Your task to perform on an android device: Set an alarm for 6pm Image 0: 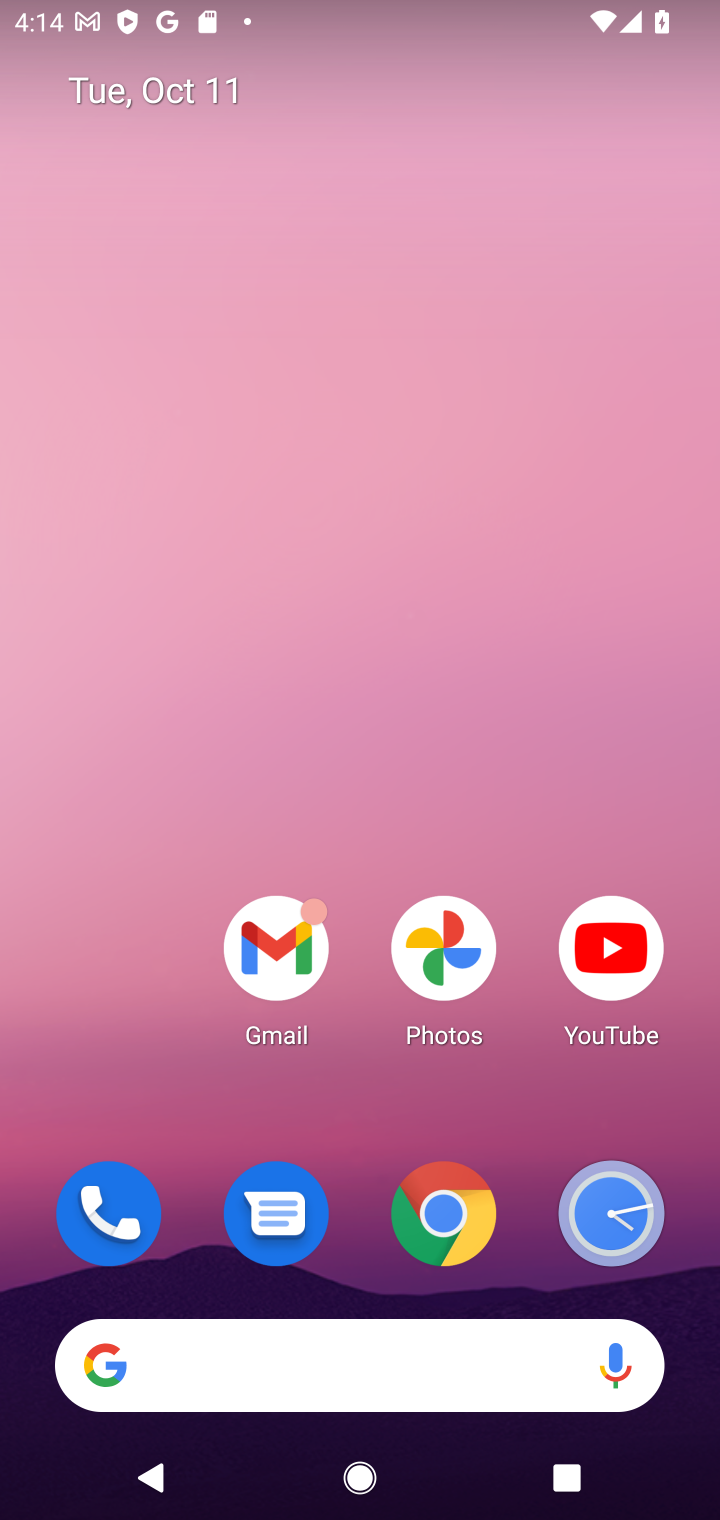
Step 0: click (590, 1205)
Your task to perform on an android device: Set an alarm for 6pm Image 1: 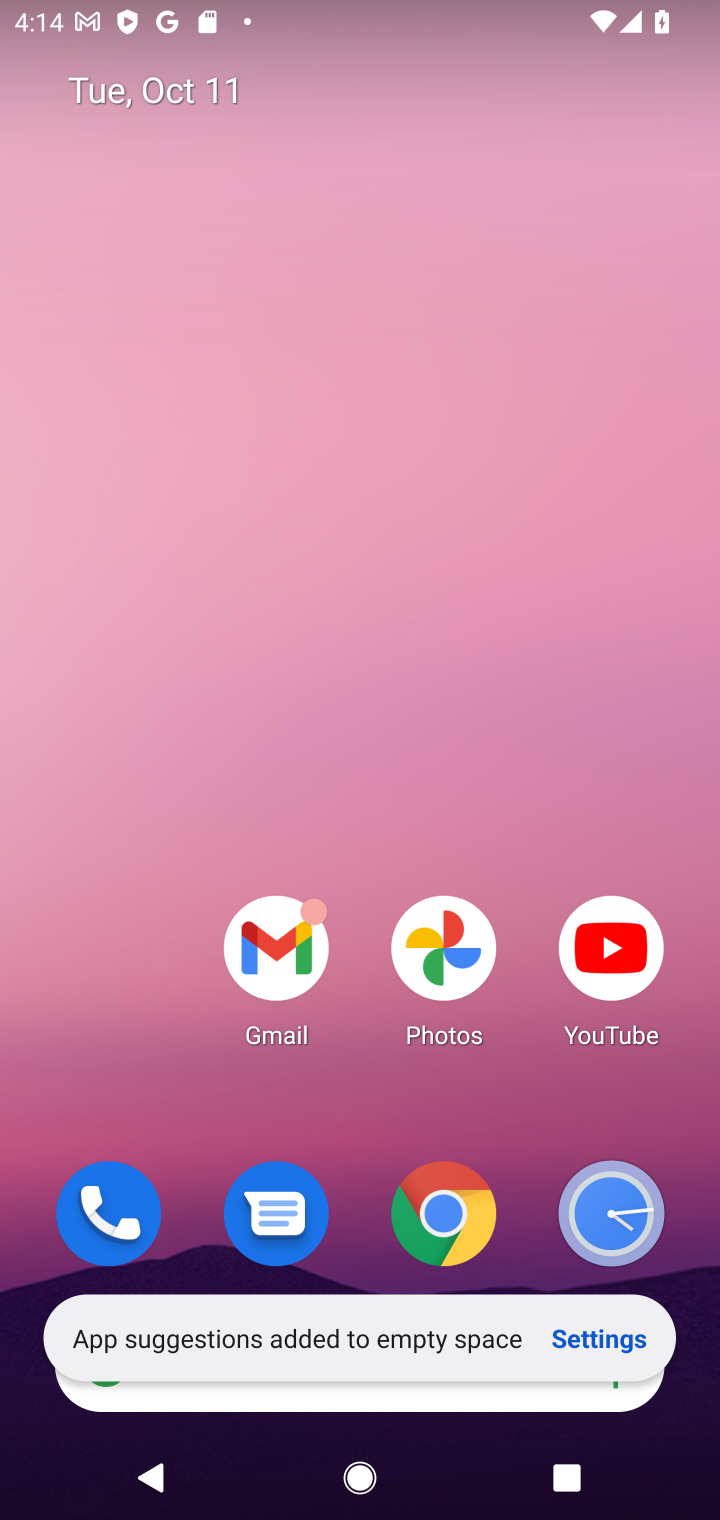
Step 1: click (615, 1211)
Your task to perform on an android device: Set an alarm for 6pm Image 2: 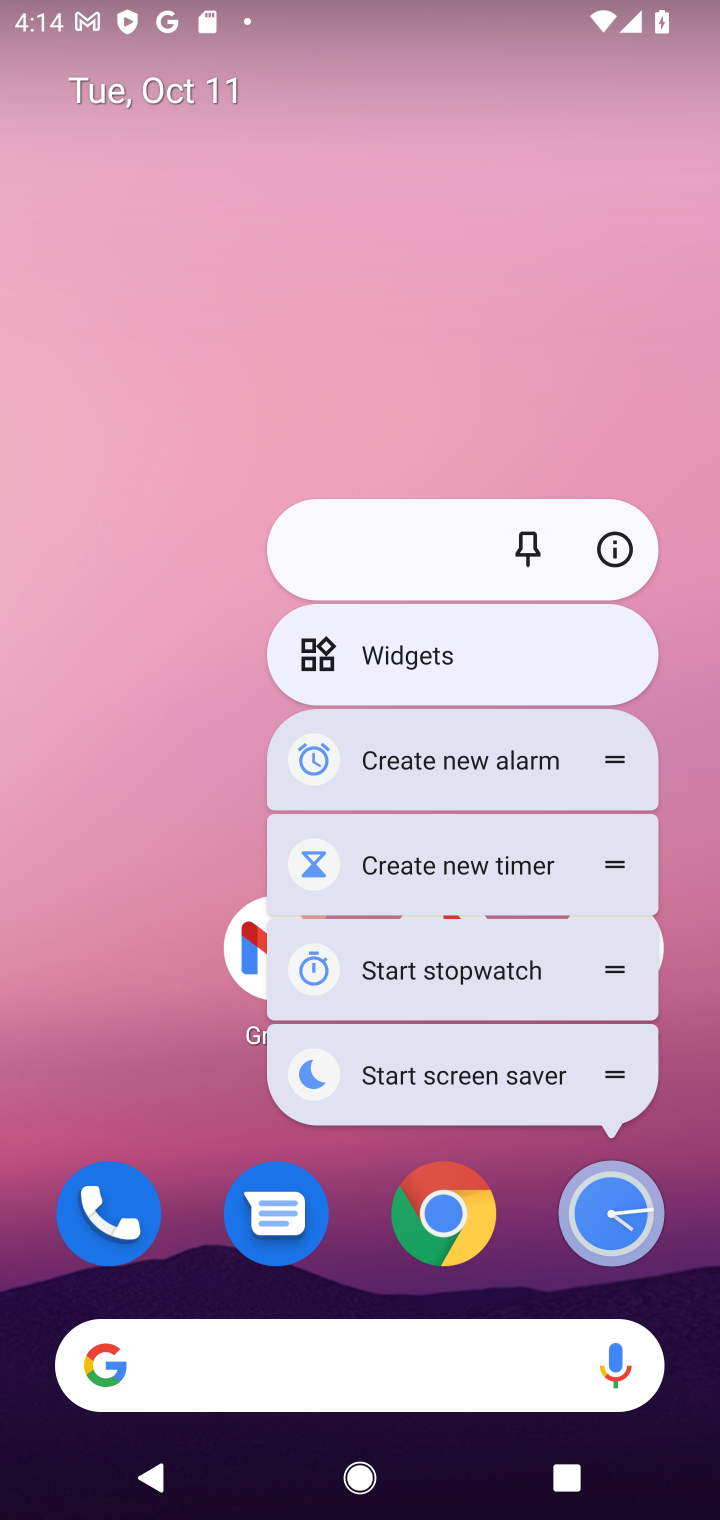
Step 2: click (613, 1228)
Your task to perform on an android device: Set an alarm for 6pm Image 3: 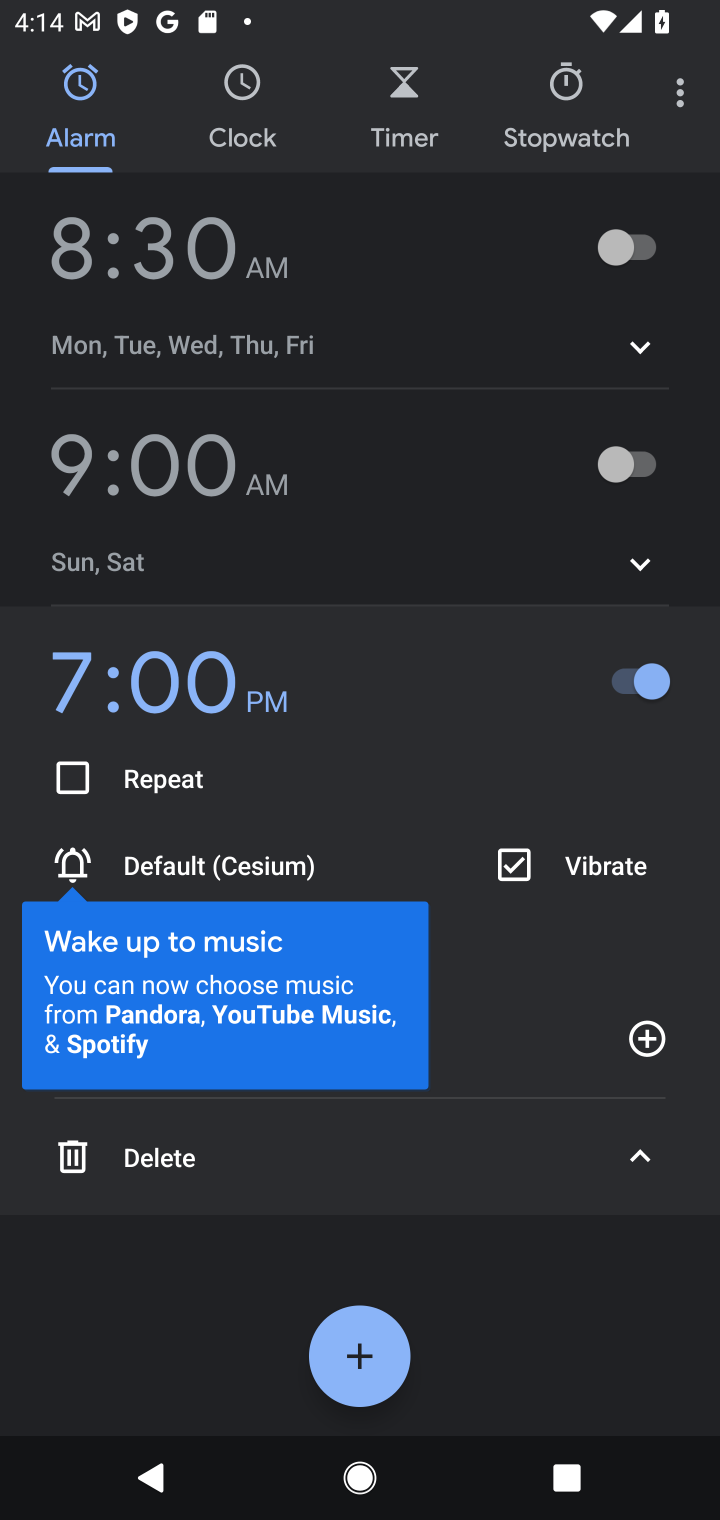
Step 3: click (343, 1358)
Your task to perform on an android device: Set an alarm for 6pm Image 4: 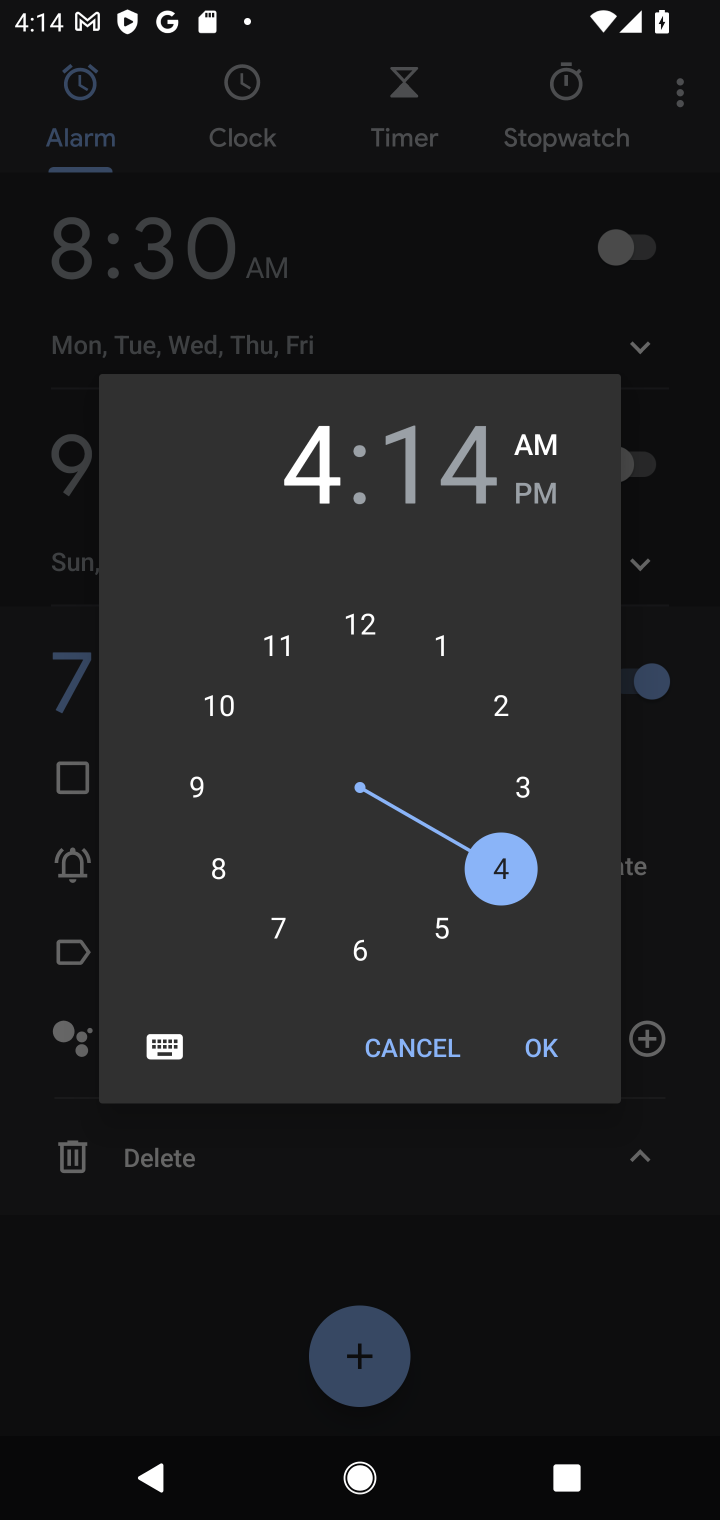
Step 4: click (340, 970)
Your task to perform on an android device: Set an alarm for 6pm Image 5: 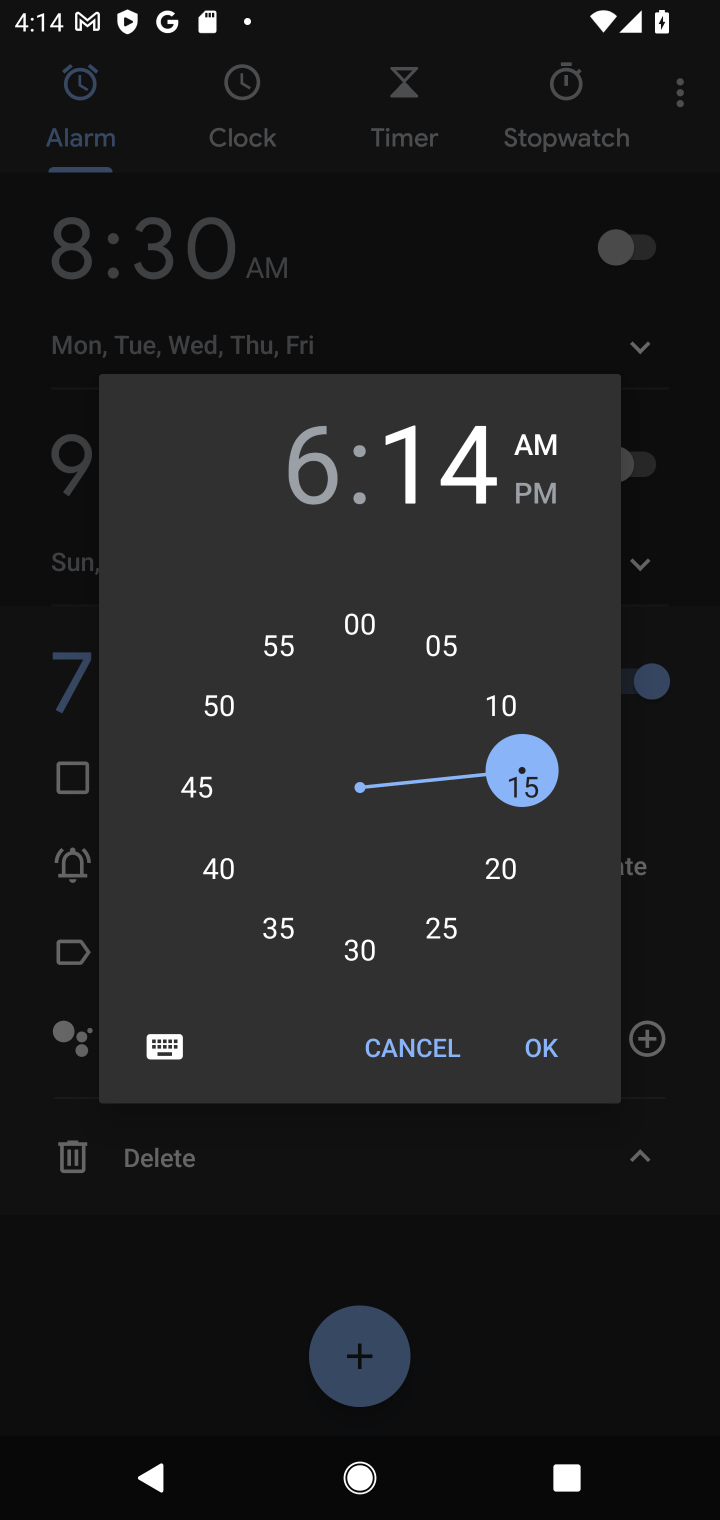
Step 5: click (356, 638)
Your task to perform on an android device: Set an alarm for 6pm Image 6: 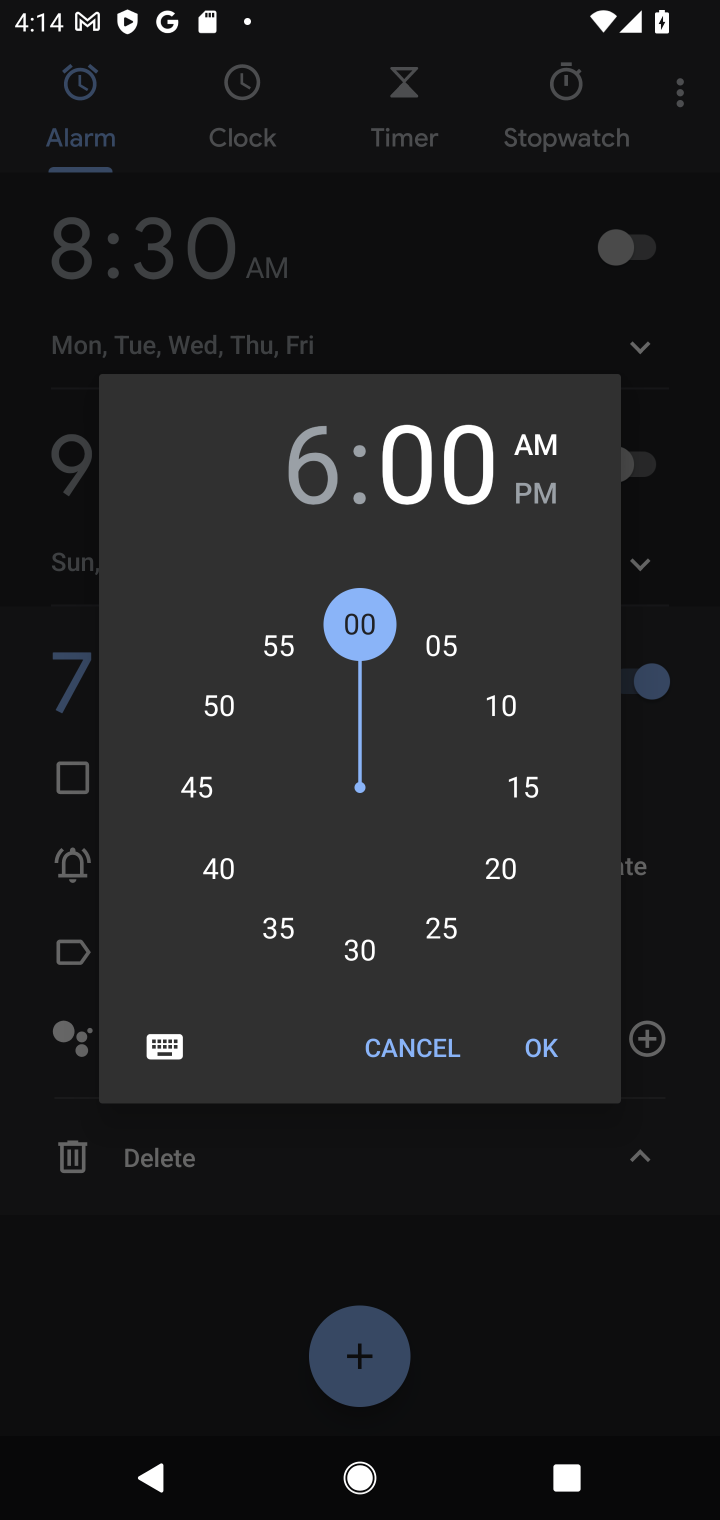
Step 6: click (557, 492)
Your task to perform on an android device: Set an alarm for 6pm Image 7: 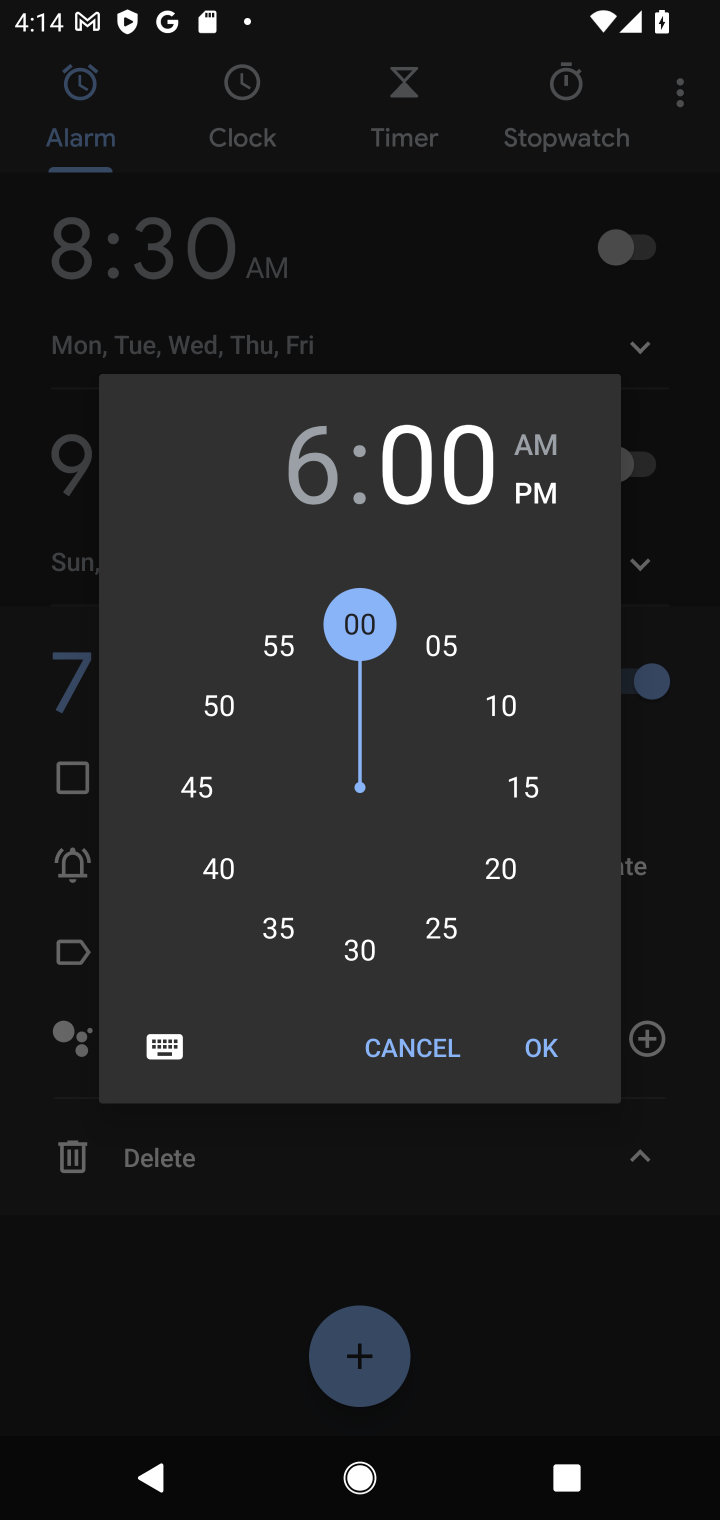
Step 7: click (550, 1040)
Your task to perform on an android device: Set an alarm for 6pm Image 8: 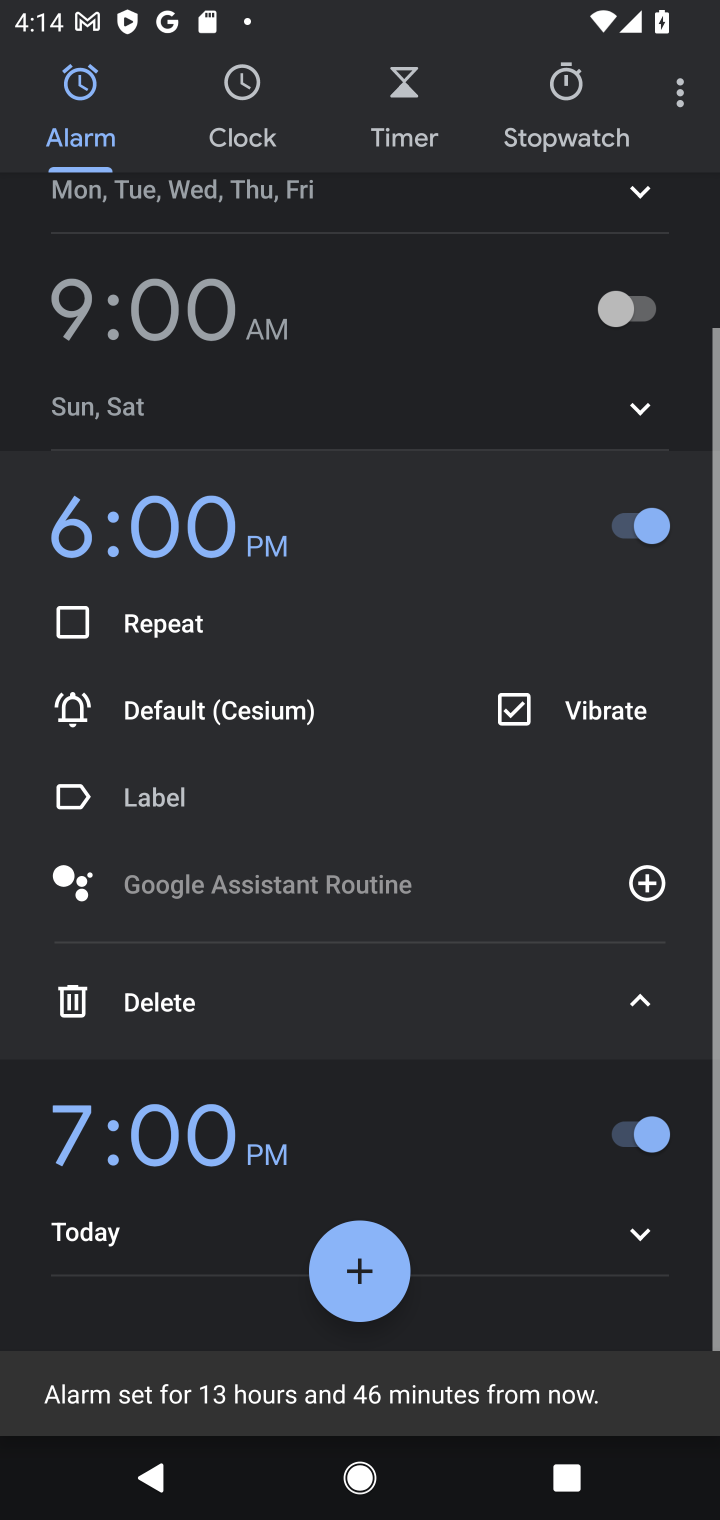
Step 8: task complete